Your task to perform on an android device: Go to privacy settings Image 0: 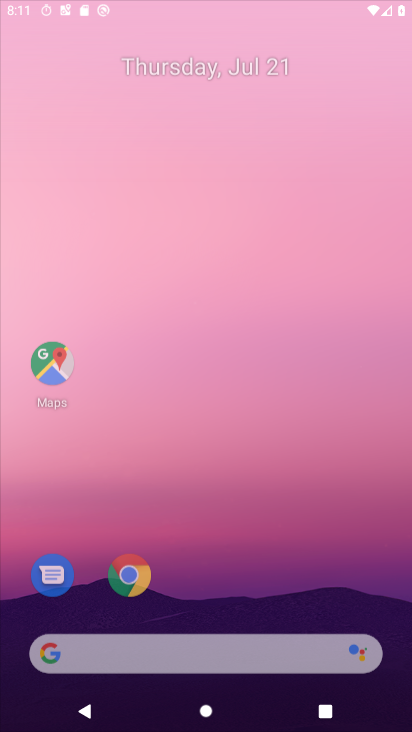
Step 0: drag from (270, 672) to (291, 386)
Your task to perform on an android device: Go to privacy settings Image 1: 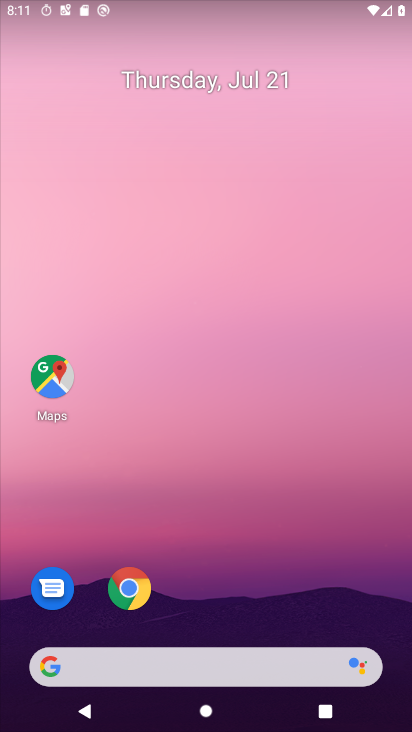
Step 1: drag from (254, 524) to (279, 332)
Your task to perform on an android device: Go to privacy settings Image 2: 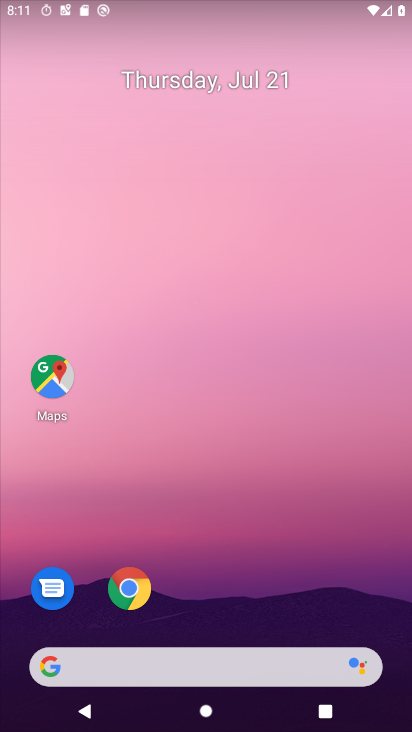
Step 2: drag from (259, 649) to (120, 62)
Your task to perform on an android device: Go to privacy settings Image 3: 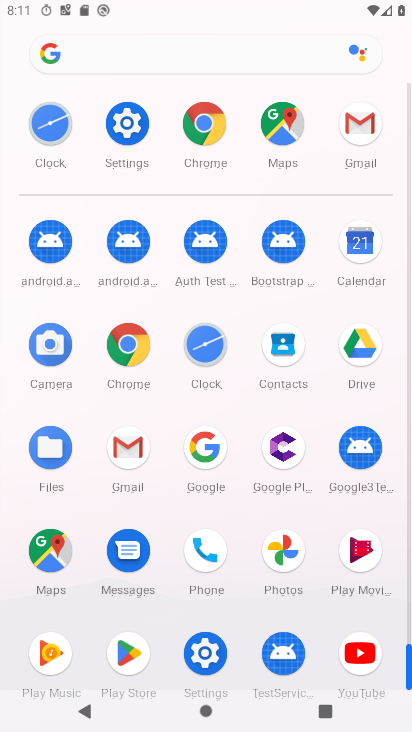
Step 3: click (129, 138)
Your task to perform on an android device: Go to privacy settings Image 4: 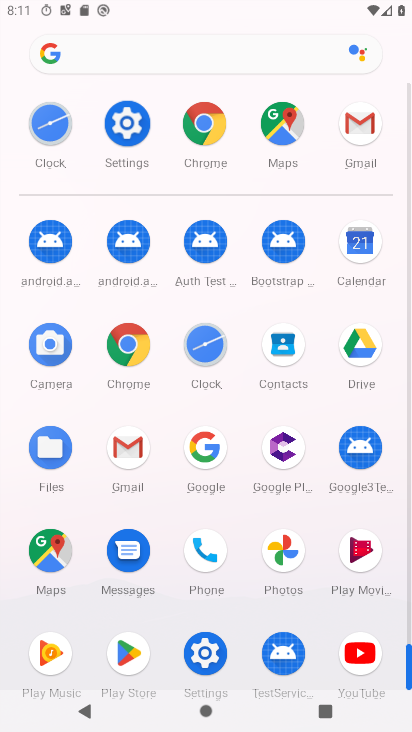
Step 4: click (128, 130)
Your task to perform on an android device: Go to privacy settings Image 5: 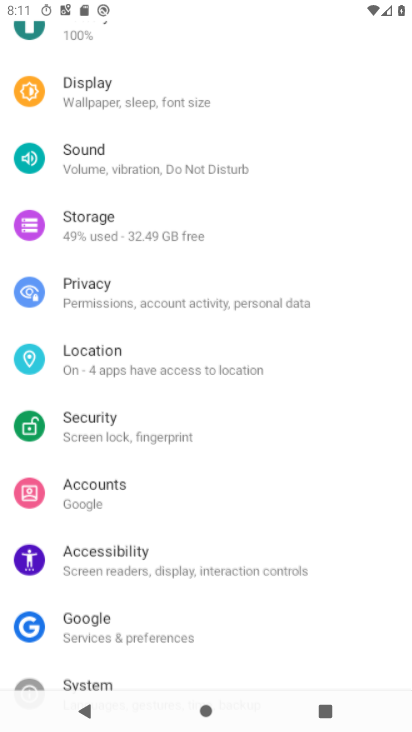
Step 5: click (125, 131)
Your task to perform on an android device: Go to privacy settings Image 6: 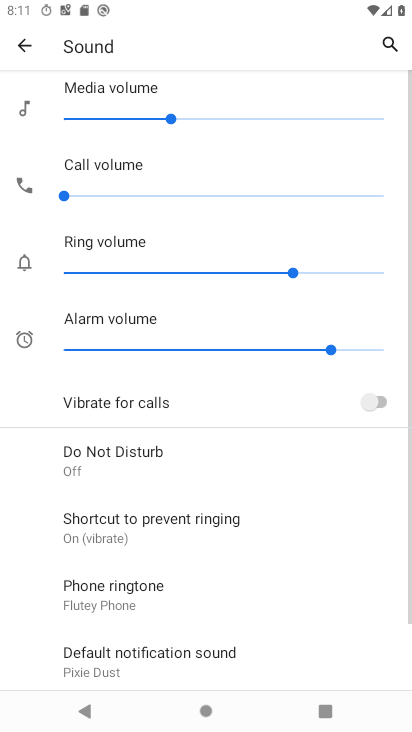
Step 6: click (16, 48)
Your task to perform on an android device: Go to privacy settings Image 7: 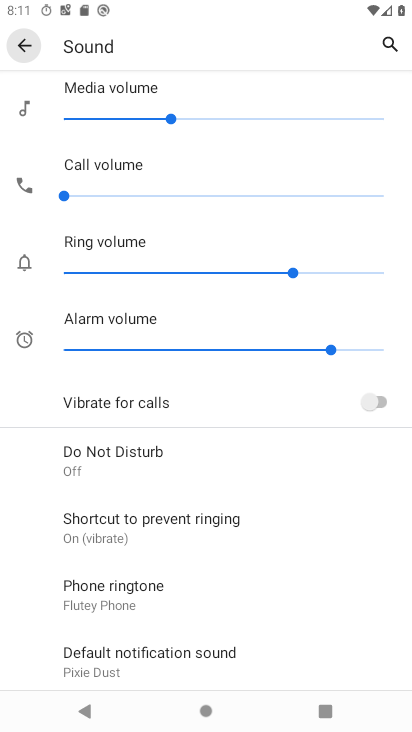
Step 7: click (18, 47)
Your task to perform on an android device: Go to privacy settings Image 8: 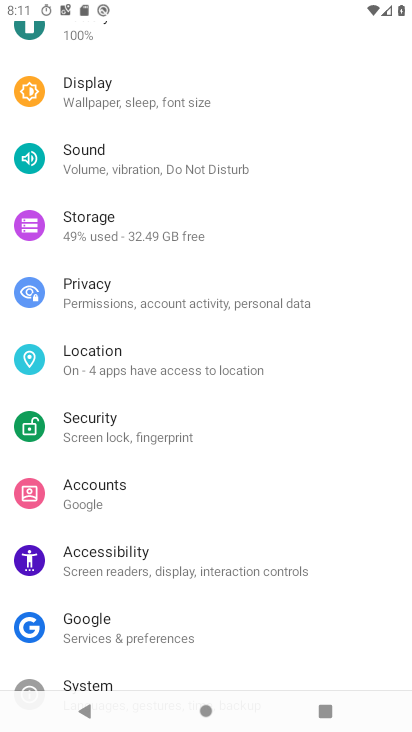
Step 8: click (98, 287)
Your task to perform on an android device: Go to privacy settings Image 9: 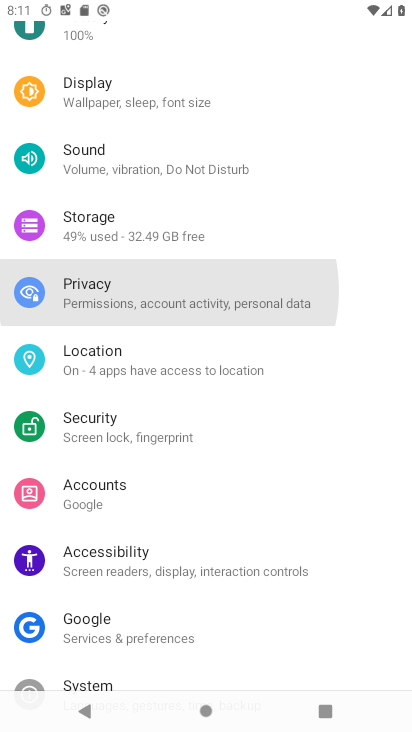
Step 9: click (96, 289)
Your task to perform on an android device: Go to privacy settings Image 10: 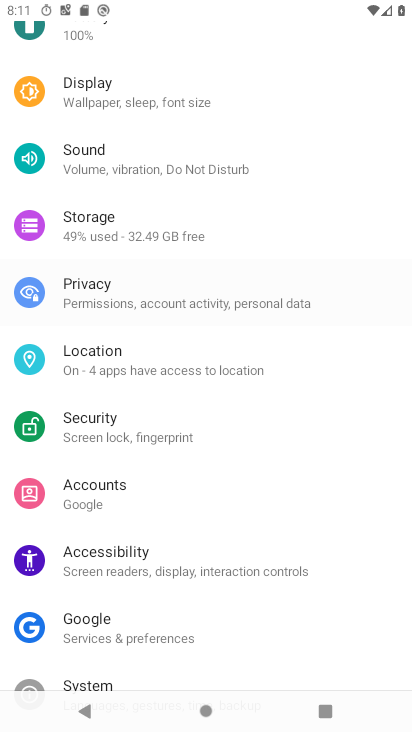
Step 10: click (95, 291)
Your task to perform on an android device: Go to privacy settings Image 11: 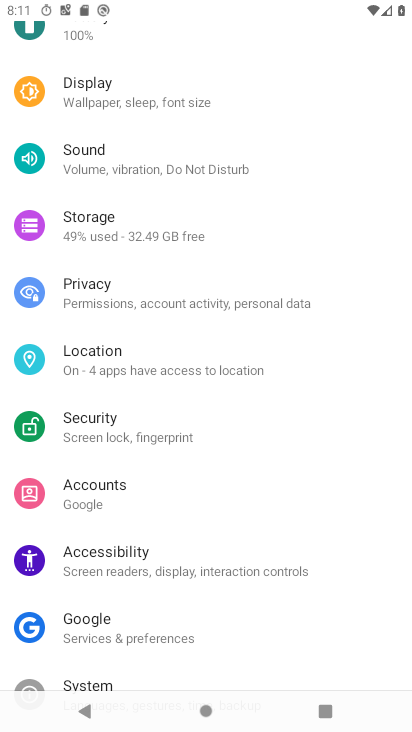
Step 11: click (95, 291)
Your task to perform on an android device: Go to privacy settings Image 12: 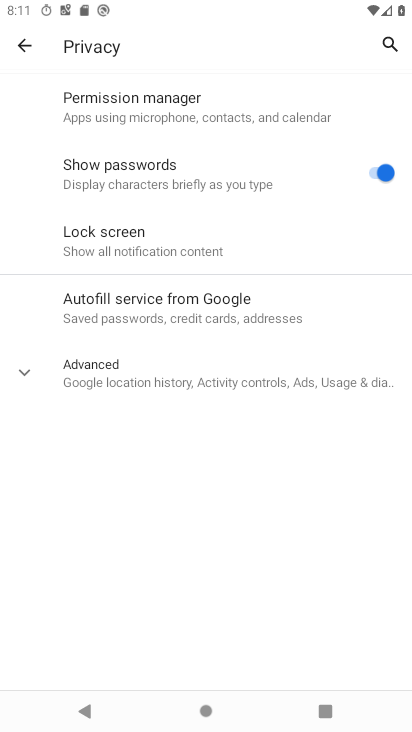
Step 12: task complete